Your task to perform on an android device: Open calendar and show me the second week of next month Image 0: 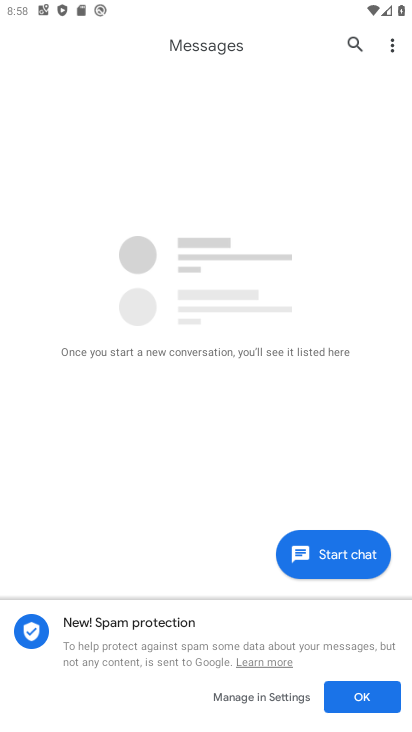
Step 0: press home button
Your task to perform on an android device: Open calendar and show me the second week of next month Image 1: 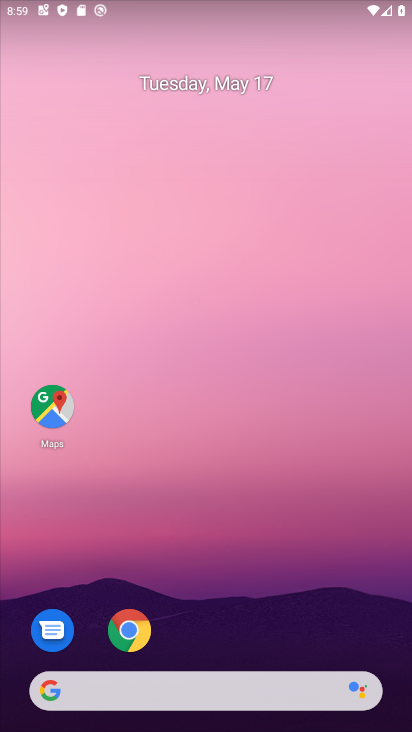
Step 1: drag from (212, 609) to (141, 175)
Your task to perform on an android device: Open calendar and show me the second week of next month Image 2: 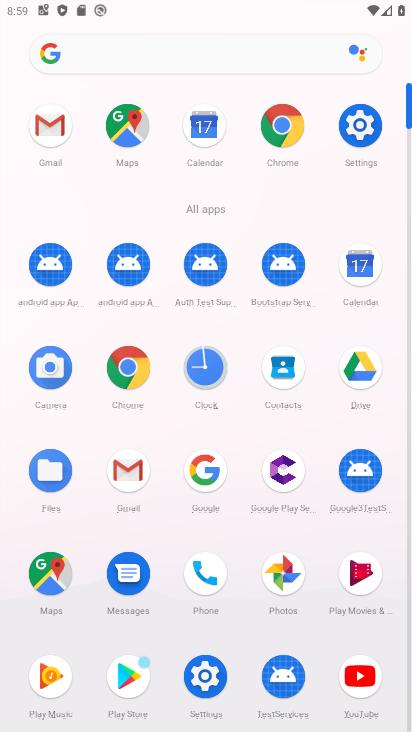
Step 2: click (358, 277)
Your task to perform on an android device: Open calendar and show me the second week of next month Image 3: 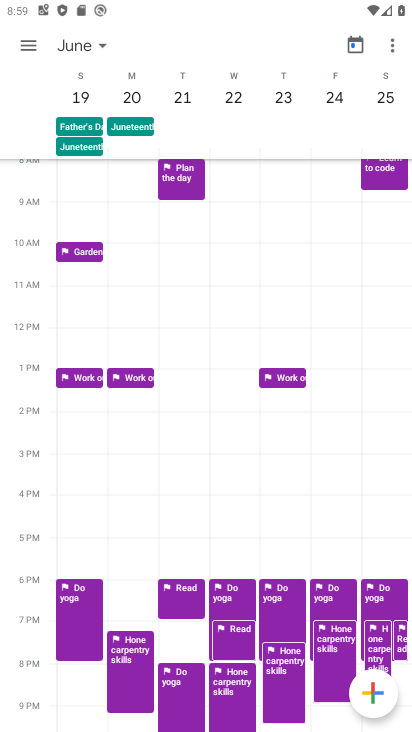
Step 3: task complete